Your task to perform on an android device: turn on showing notifications on the lock screen Image 0: 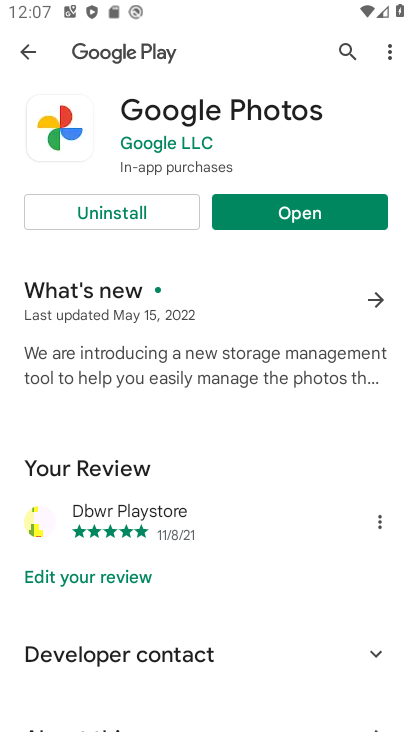
Step 0: press home button
Your task to perform on an android device: turn on showing notifications on the lock screen Image 1: 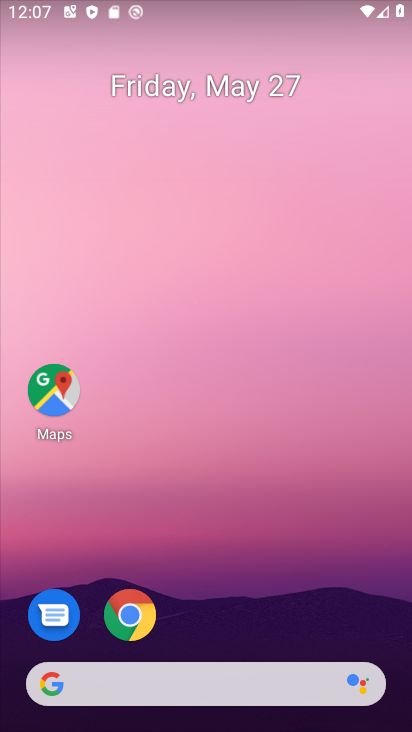
Step 1: drag from (161, 678) to (268, 29)
Your task to perform on an android device: turn on showing notifications on the lock screen Image 2: 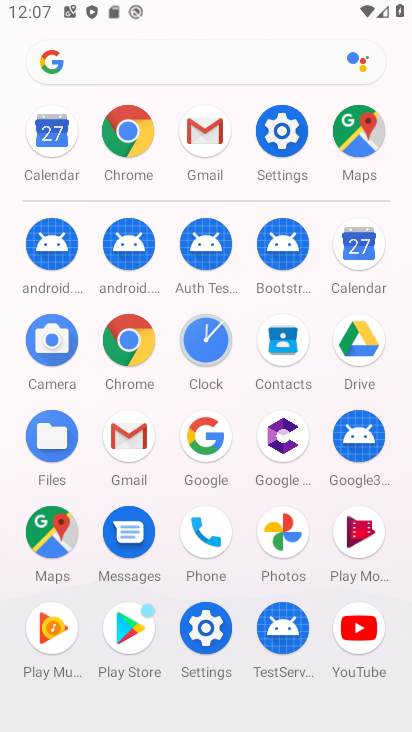
Step 2: click (218, 636)
Your task to perform on an android device: turn on showing notifications on the lock screen Image 3: 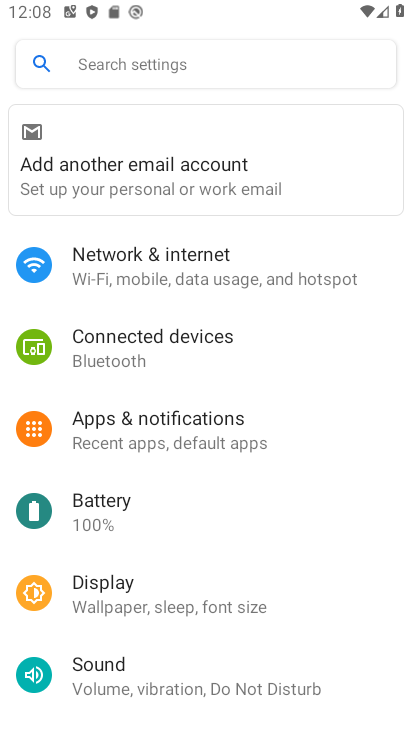
Step 3: click (158, 429)
Your task to perform on an android device: turn on showing notifications on the lock screen Image 4: 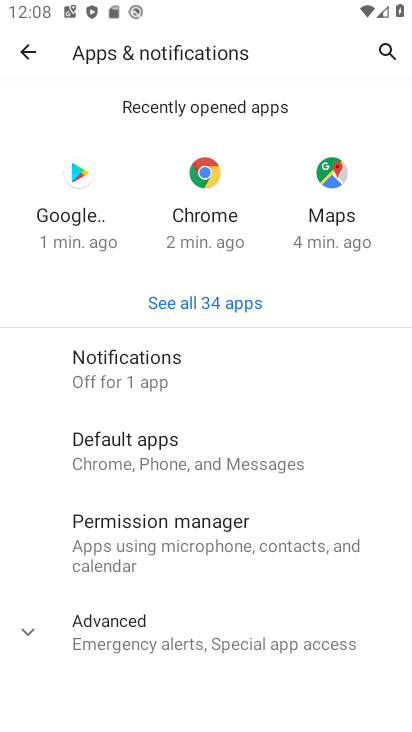
Step 4: click (165, 348)
Your task to perform on an android device: turn on showing notifications on the lock screen Image 5: 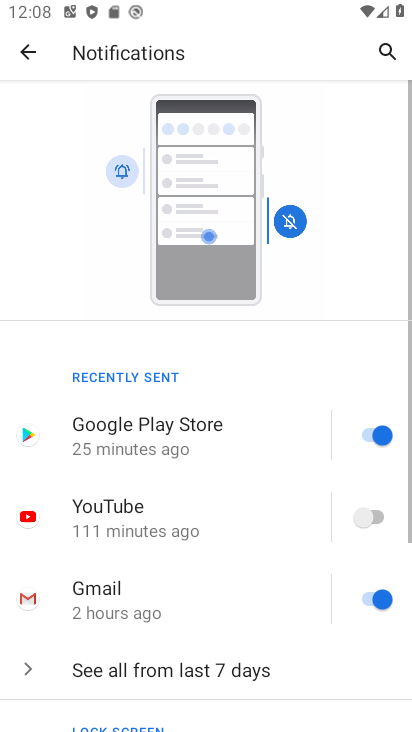
Step 5: drag from (206, 618) to (320, 63)
Your task to perform on an android device: turn on showing notifications on the lock screen Image 6: 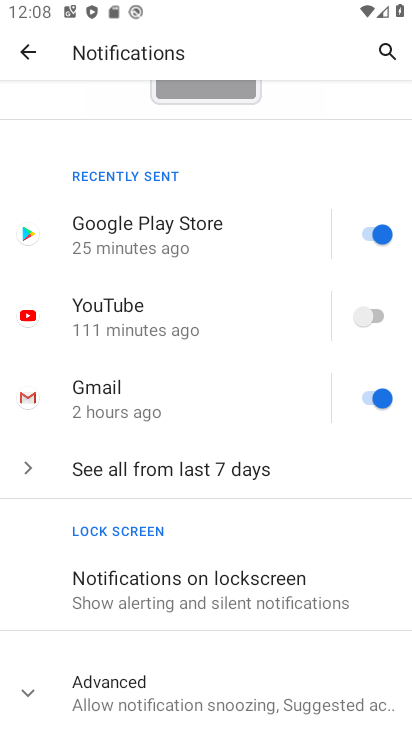
Step 6: click (201, 604)
Your task to perform on an android device: turn on showing notifications on the lock screen Image 7: 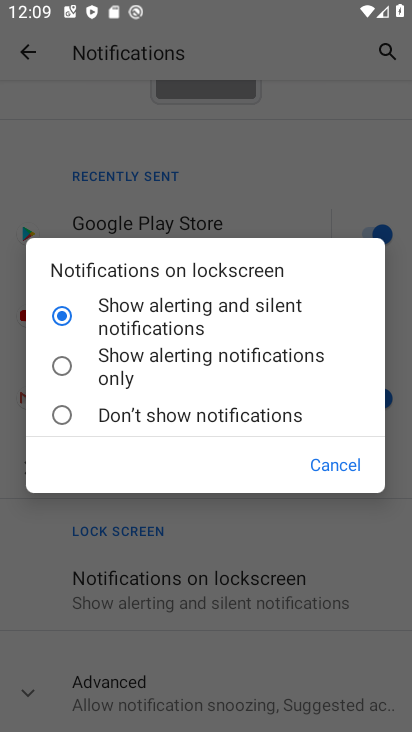
Step 7: task complete